Your task to perform on an android device: Open the stopwatch Image 0: 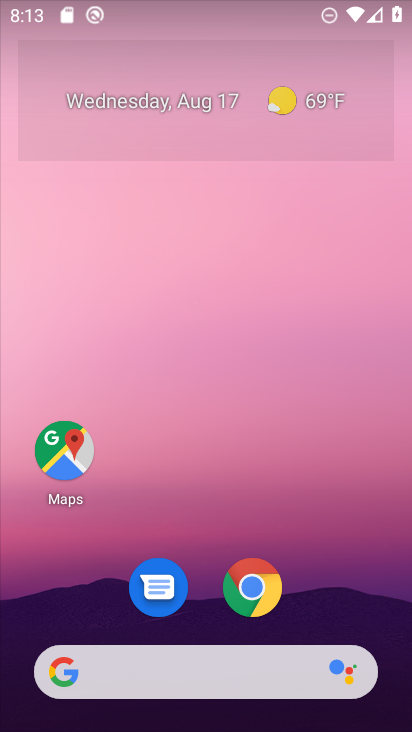
Step 0: drag from (36, 705) to (339, 163)
Your task to perform on an android device: Open the stopwatch Image 1: 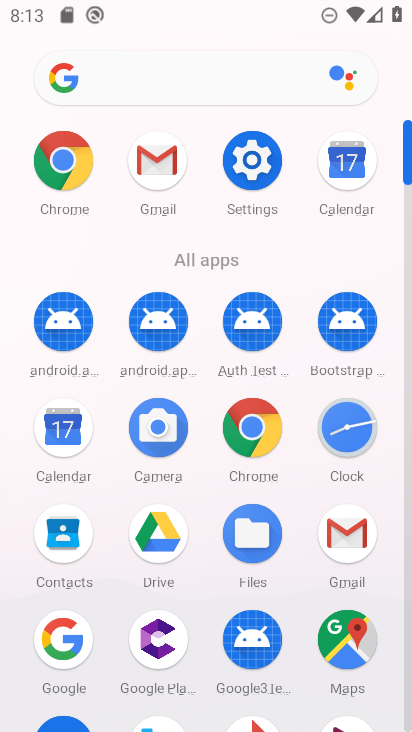
Step 1: click (361, 442)
Your task to perform on an android device: Open the stopwatch Image 2: 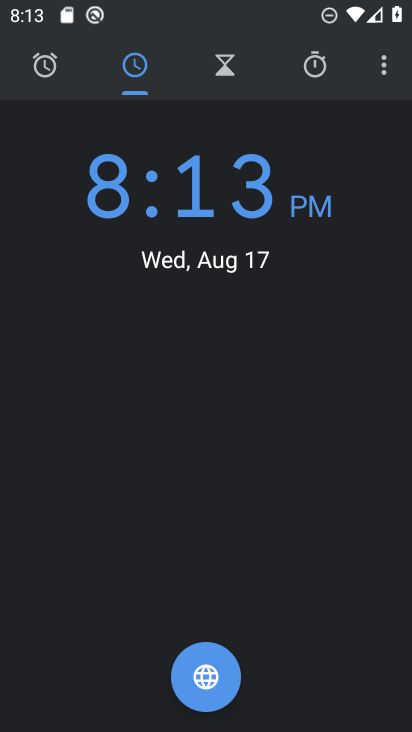
Step 2: click (229, 78)
Your task to perform on an android device: Open the stopwatch Image 3: 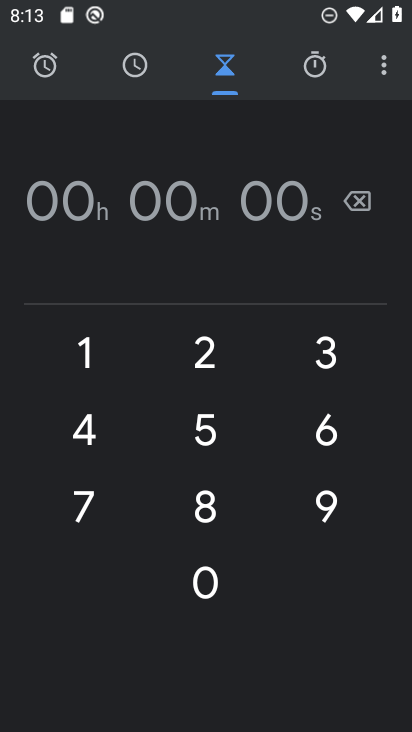
Step 3: click (163, 440)
Your task to perform on an android device: Open the stopwatch Image 4: 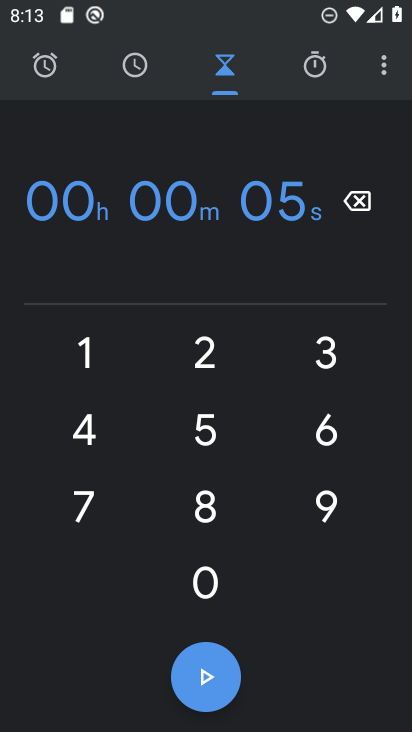
Step 4: click (85, 380)
Your task to perform on an android device: Open the stopwatch Image 5: 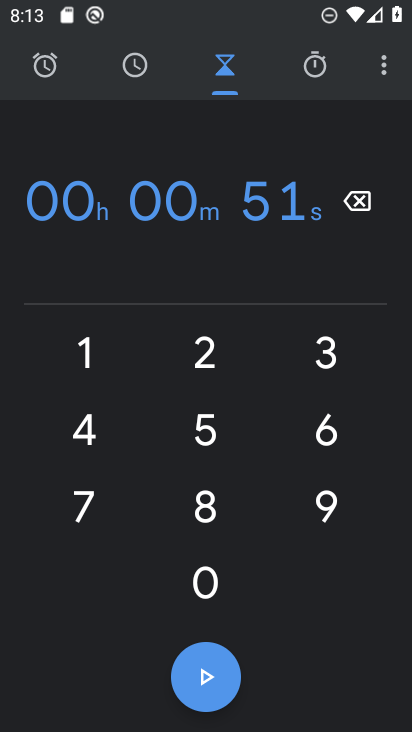
Step 5: click (221, 693)
Your task to perform on an android device: Open the stopwatch Image 6: 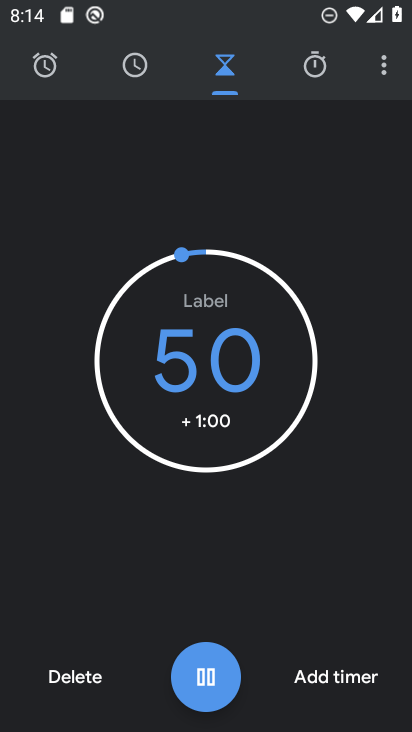
Step 6: click (221, 693)
Your task to perform on an android device: Open the stopwatch Image 7: 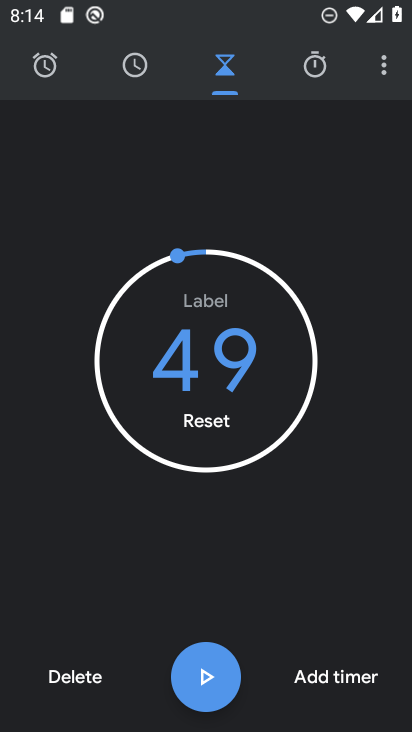
Step 7: task complete